Your task to perform on an android device: toggle wifi Image 0: 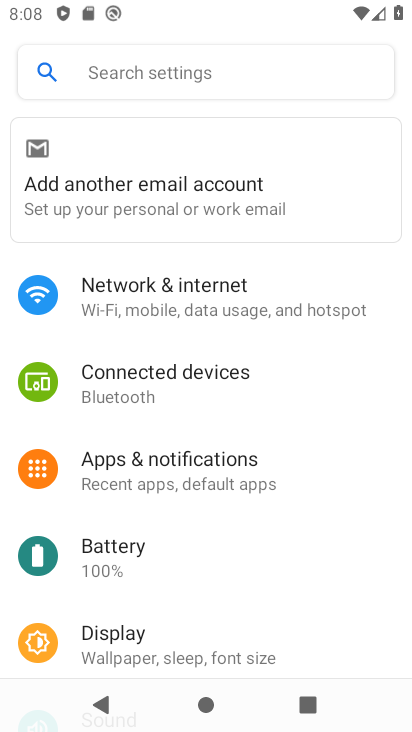
Step 0: click (399, 628)
Your task to perform on an android device: toggle wifi Image 1: 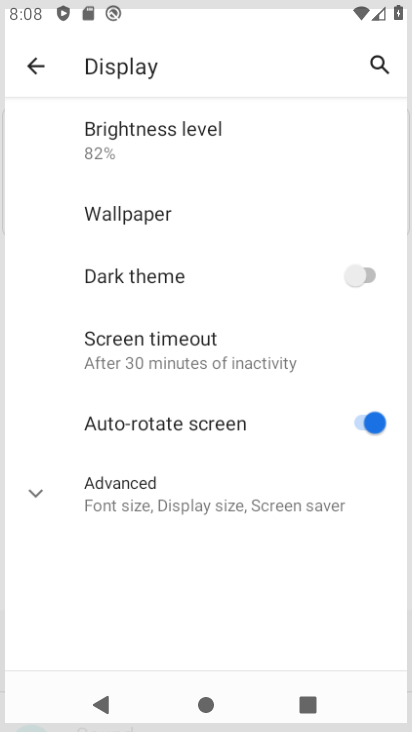
Step 1: click (214, 299)
Your task to perform on an android device: toggle wifi Image 2: 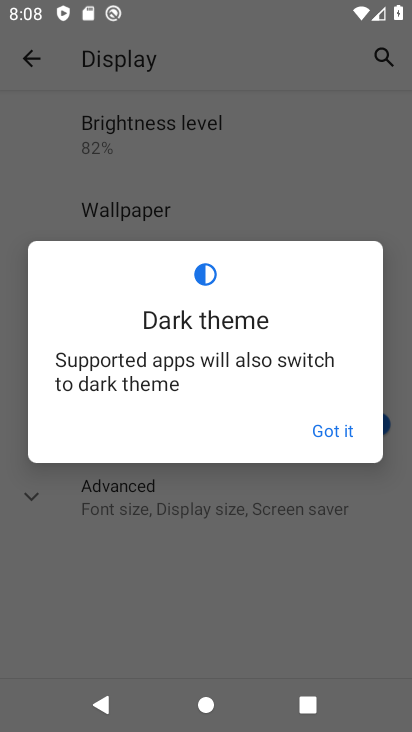
Step 2: click (26, 62)
Your task to perform on an android device: toggle wifi Image 3: 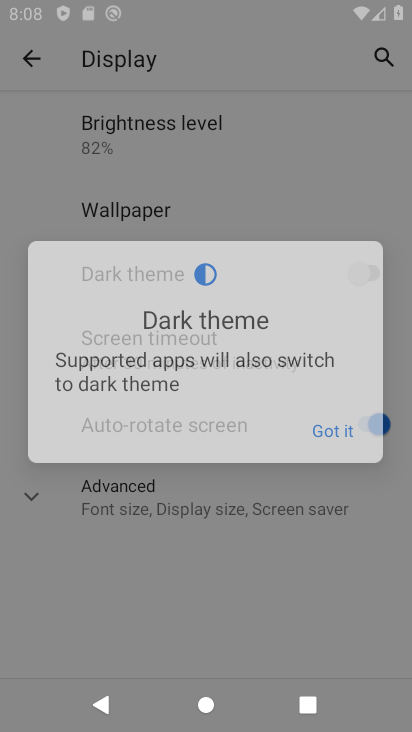
Step 3: click (27, 61)
Your task to perform on an android device: toggle wifi Image 4: 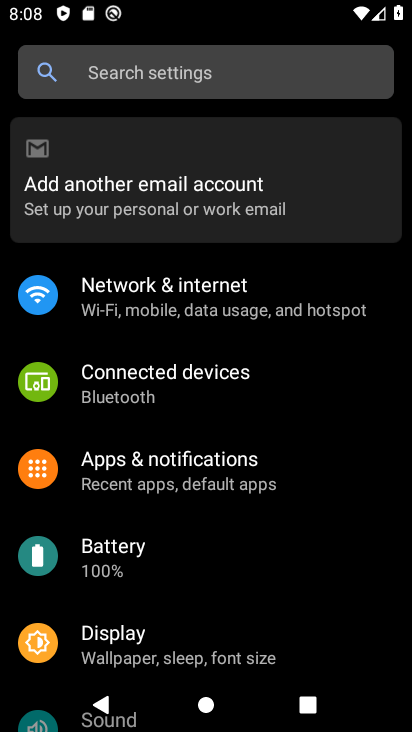
Step 4: click (183, 301)
Your task to perform on an android device: toggle wifi Image 5: 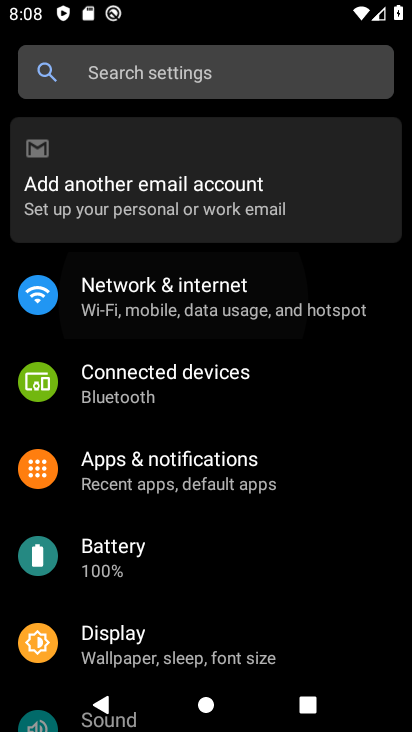
Step 5: click (183, 301)
Your task to perform on an android device: toggle wifi Image 6: 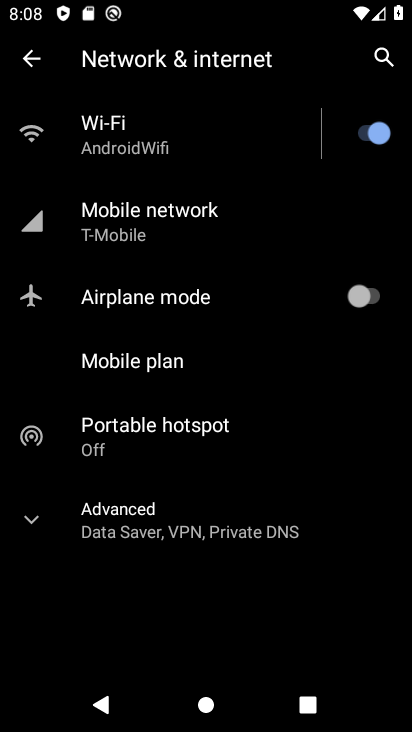
Step 6: click (383, 122)
Your task to perform on an android device: toggle wifi Image 7: 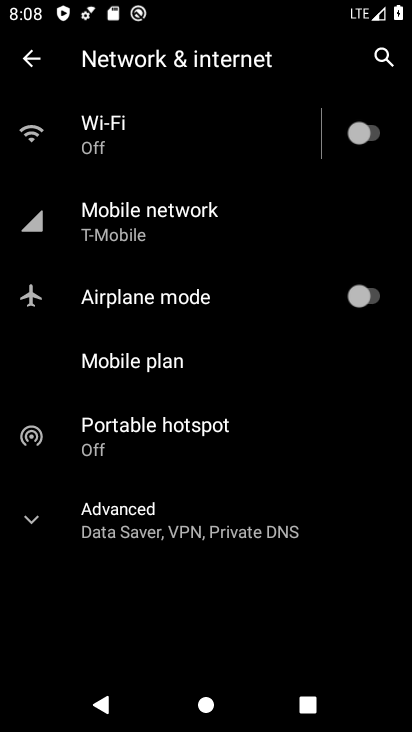
Step 7: click (19, 61)
Your task to perform on an android device: toggle wifi Image 8: 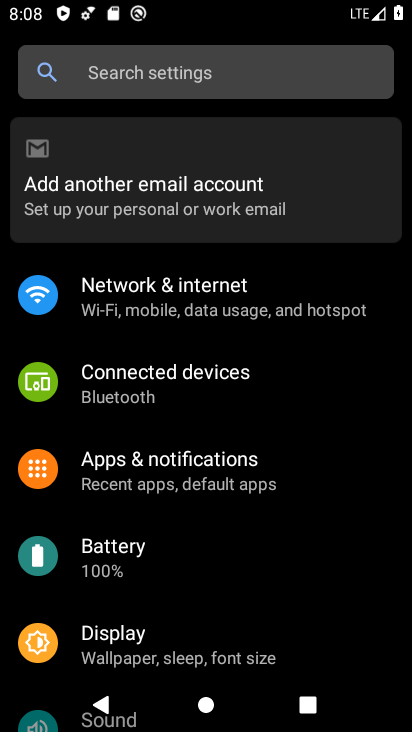
Step 8: task complete